Your task to perform on an android device: toggle location history Image 0: 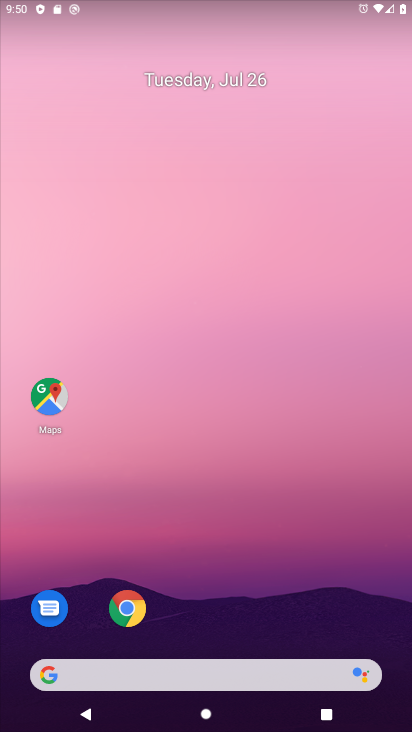
Step 0: drag from (241, 713) to (241, 303)
Your task to perform on an android device: toggle location history Image 1: 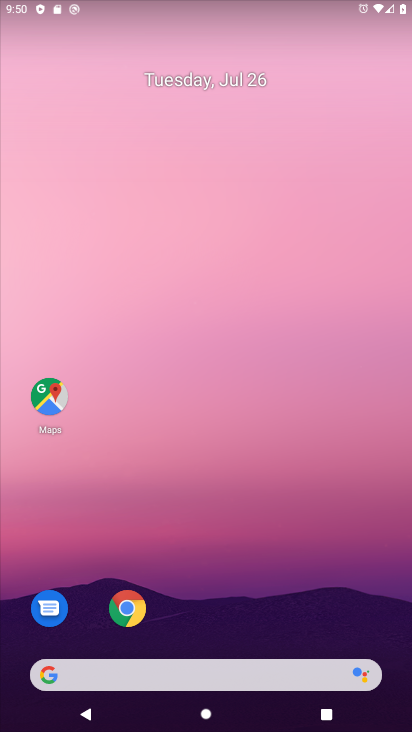
Step 1: drag from (229, 663) to (236, 163)
Your task to perform on an android device: toggle location history Image 2: 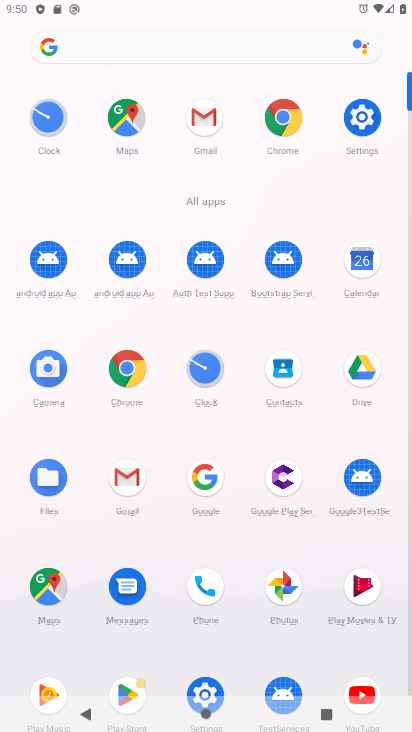
Step 2: click (364, 115)
Your task to perform on an android device: toggle location history Image 3: 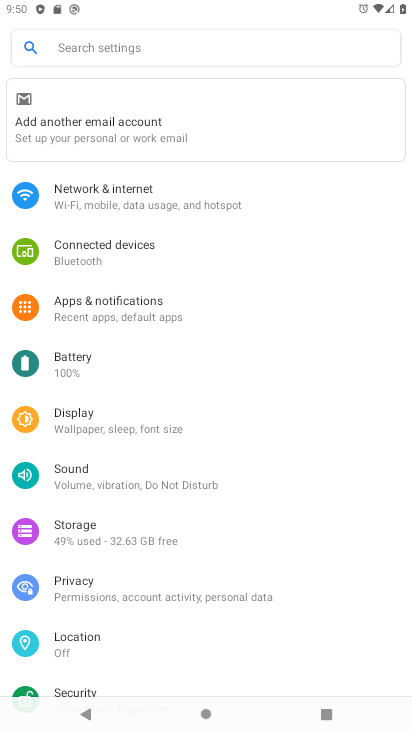
Step 3: click (74, 635)
Your task to perform on an android device: toggle location history Image 4: 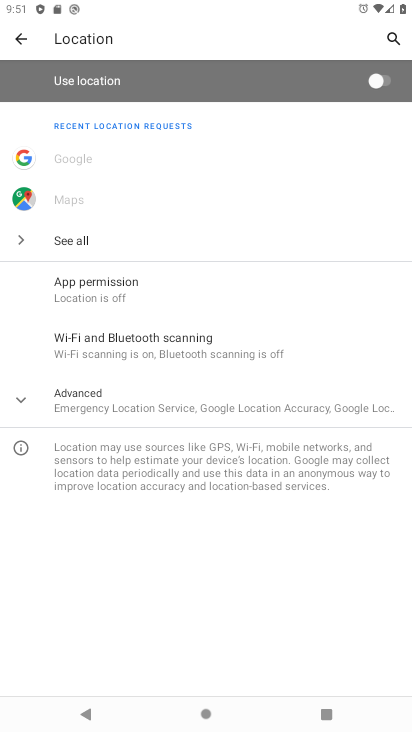
Step 4: click (93, 400)
Your task to perform on an android device: toggle location history Image 5: 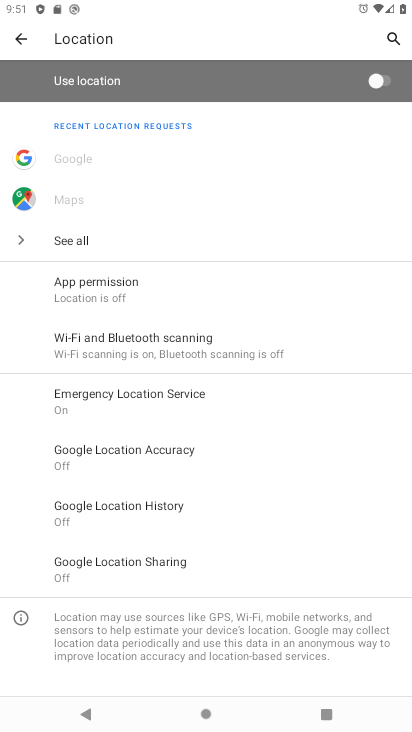
Step 5: click (145, 503)
Your task to perform on an android device: toggle location history Image 6: 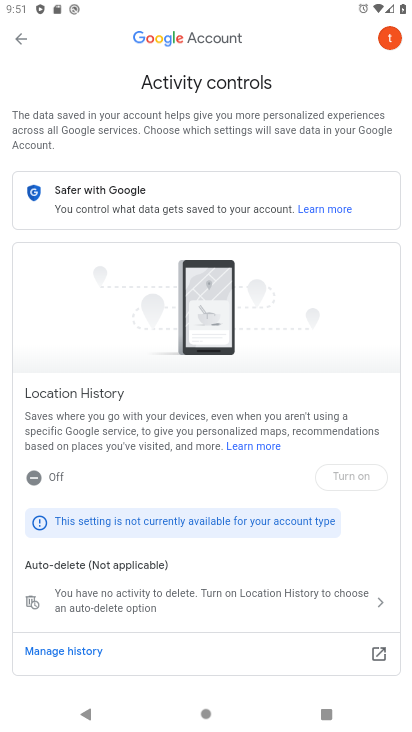
Step 6: click (64, 650)
Your task to perform on an android device: toggle location history Image 7: 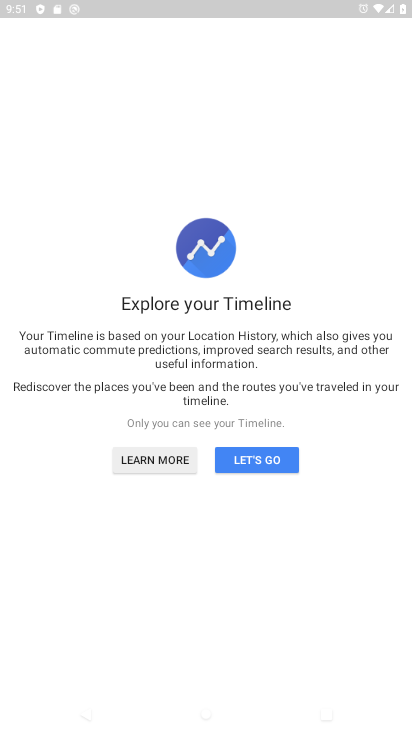
Step 7: click (248, 462)
Your task to perform on an android device: toggle location history Image 8: 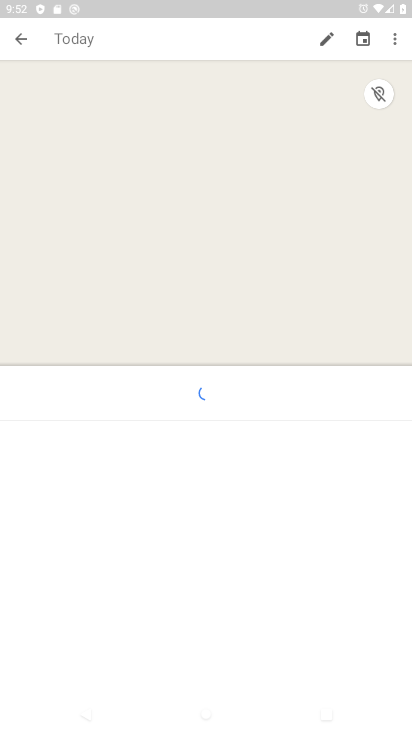
Step 8: task complete